Your task to perform on an android device: Add apple airpods to the cart on ebay Image 0: 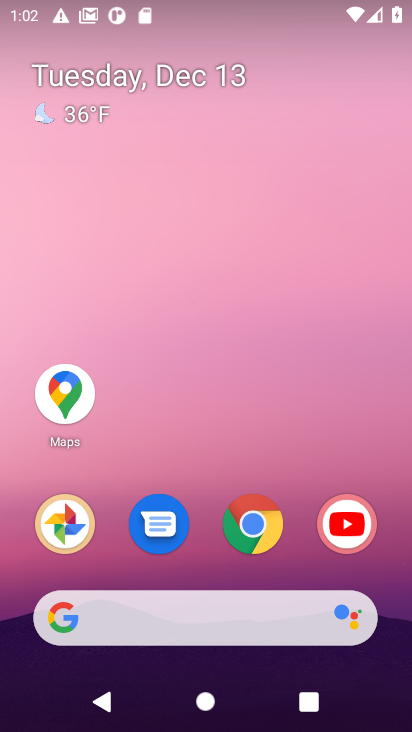
Step 0: click (258, 530)
Your task to perform on an android device: Add apple airpods to the cart on ebay Image 1: 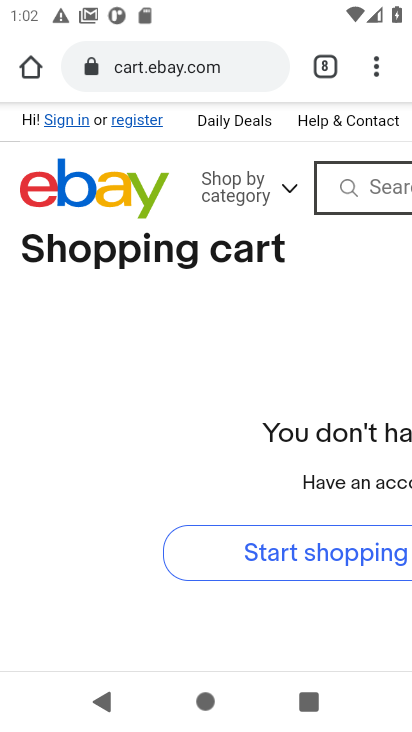
Step 1: click (384, 192)
Your task to perform on an android device: Add apple airpods to the cart on ebay Image 2: 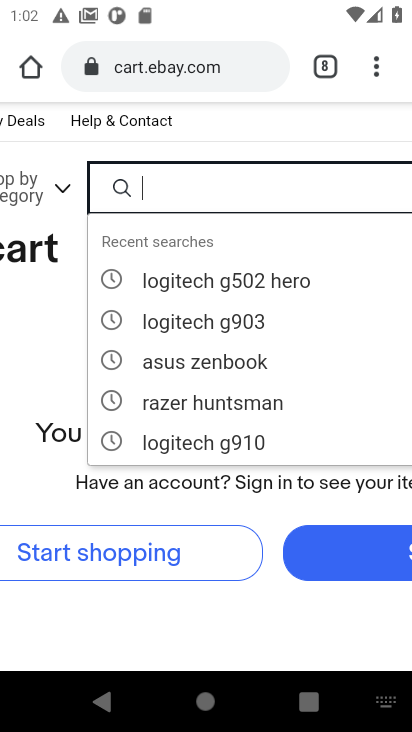
Step 2: type "apple airpods"
Your task to perform on an android device: Add apple airpods to the cart on ebay Image 3: 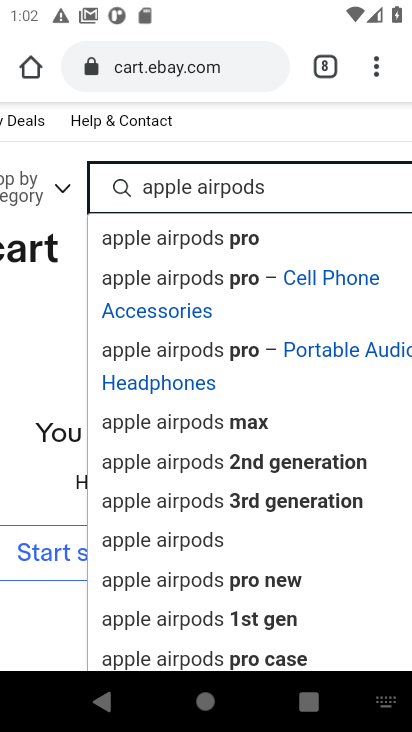
Step 3: click (185, 539)
Your task to perform on an android device: Add apple airpods to the cart on ebay Image 4: 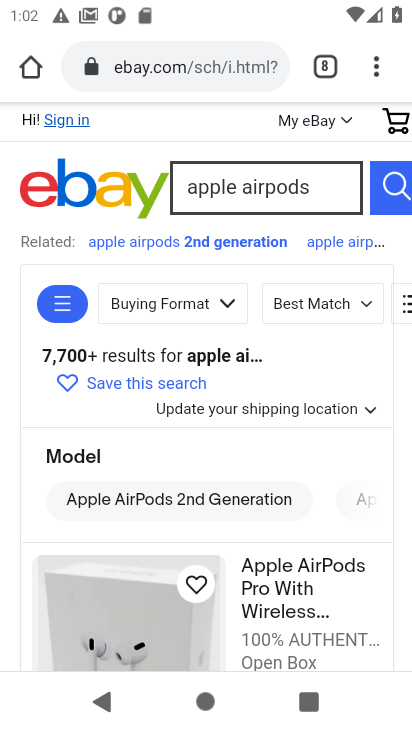
Step 4: drag from (183, 580) to (173, 254)
Your task to perform on an android device: Add apple airpods to the cart on ebay Image 5: 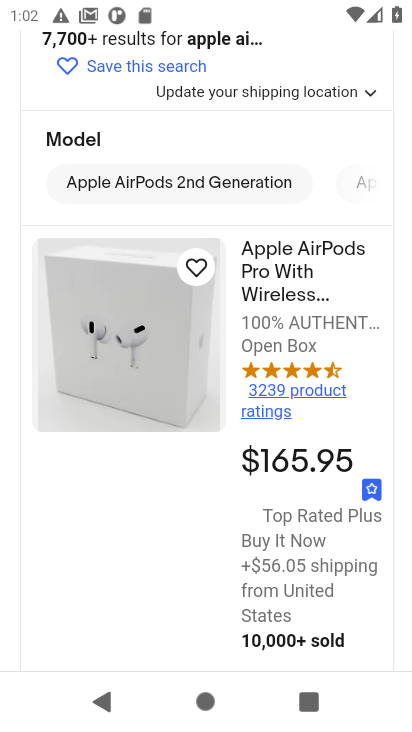
Step 5: click (272, 326)
Your task to perform on an android device: Add apple airpods to the cart on ebay Image 6: 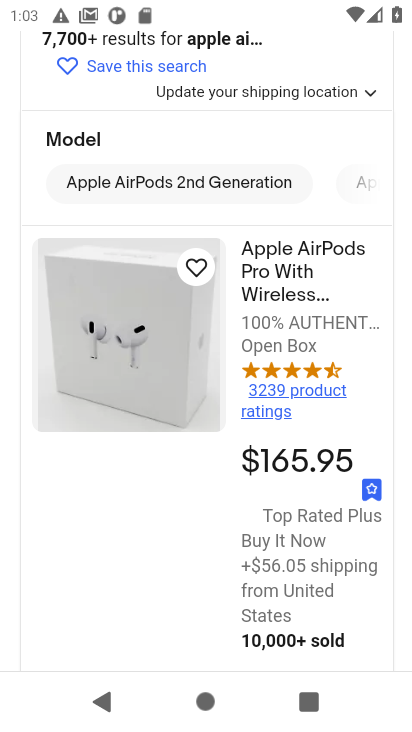
Step 6: click (282, 302)
Your task to perform on an android device: Add apple airpods to the cart on ebay Image 7: 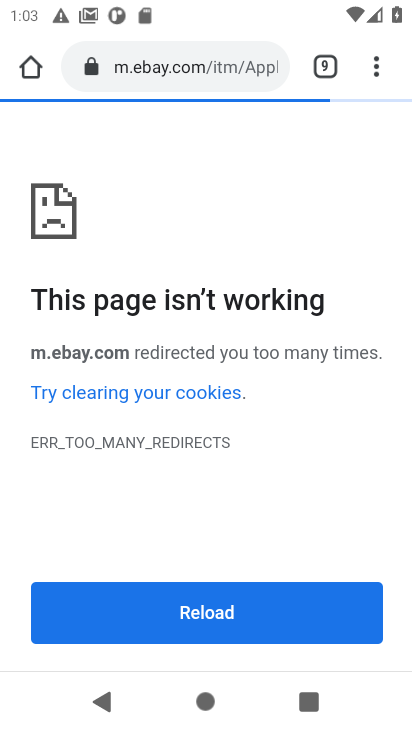
Step 7: task complete